Your task to perform on an android device: What's on my calendar today? Image 0: 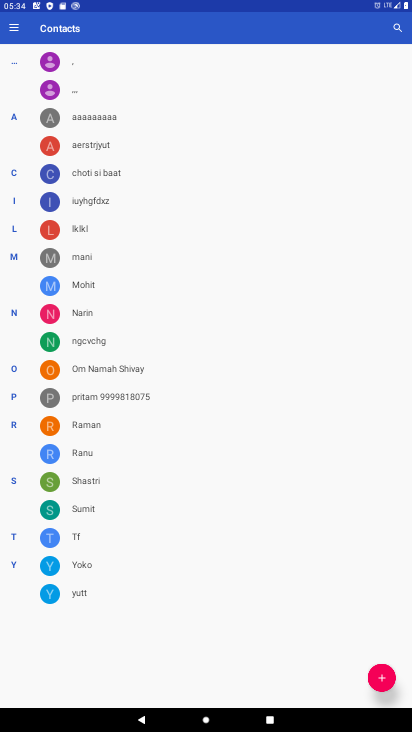
Step 0: press home button
Your task to perform on an android device: What's on my calendar today? Image 1: 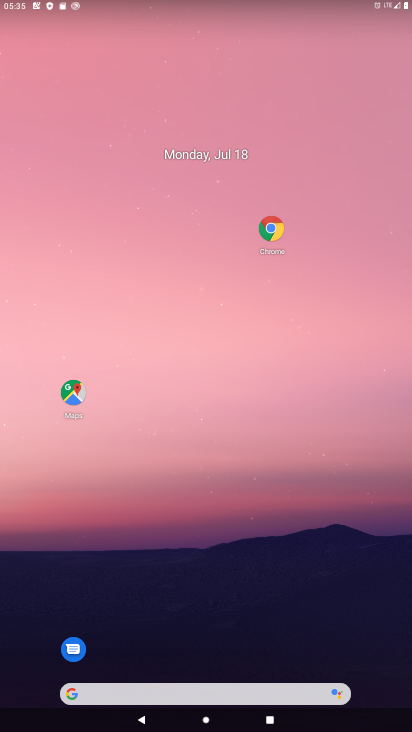
Step 1: click (245, 162)
Your task to perform on an android device: What's on my calendar today? Image 2: 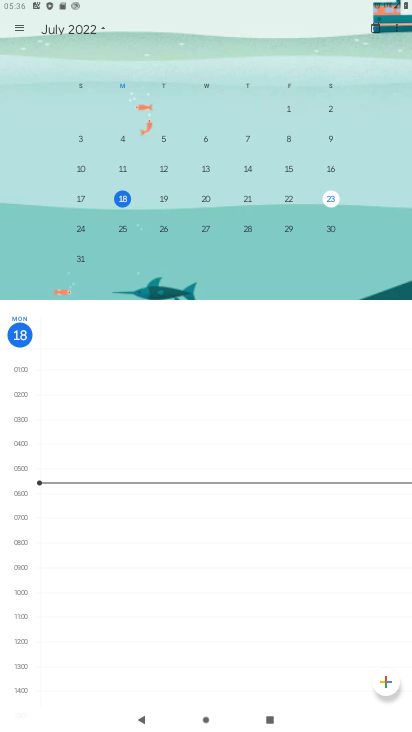
Step 2: task complete